Your task to perform on an android device: open wifi settings Image 0: 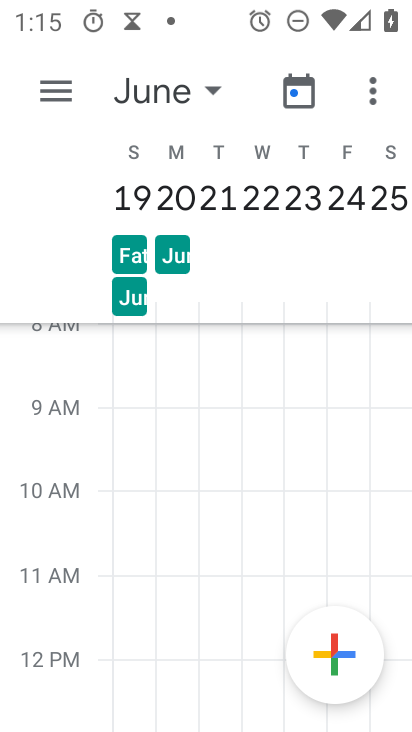
Step 0: press home button
Your task to perform on an android device: open wifi settings Image 1: 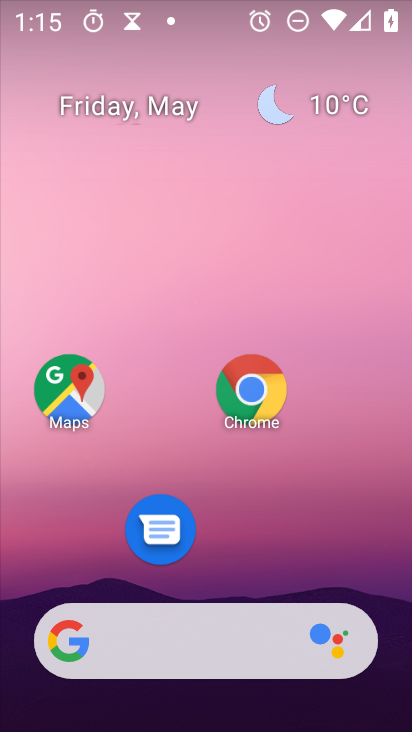
Step 1: drag from (139, 652) to (292, 155)
Your task to perform on an android device: open wifi settings Image 2: 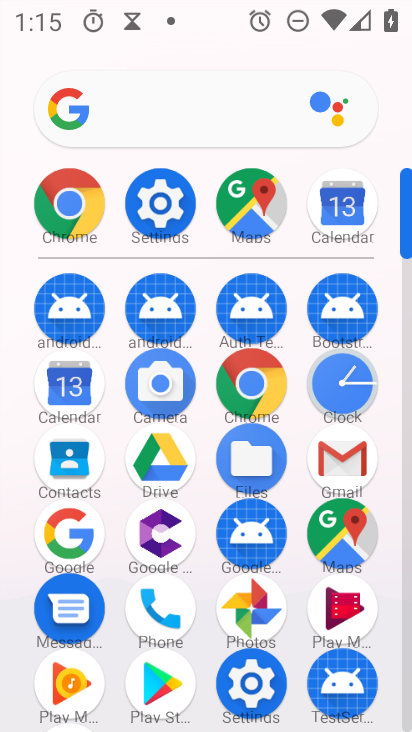
Step 2: click (167, 211)
Your task to perform on an android device: open wifi settings Image 3: 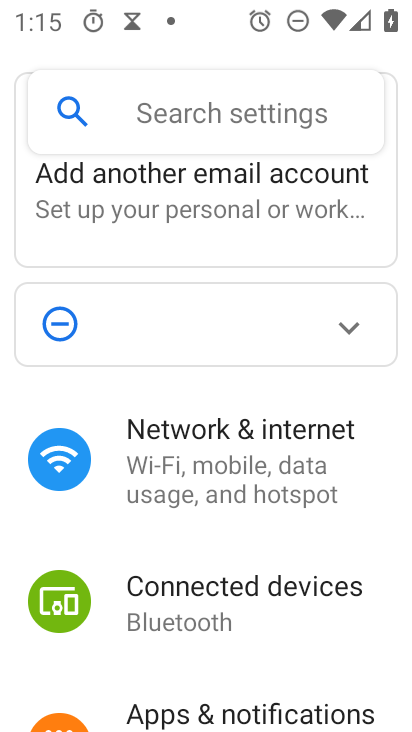
Step 3: click (192, 444)
Your task to perform on an android device: open wifi settings Image 4: 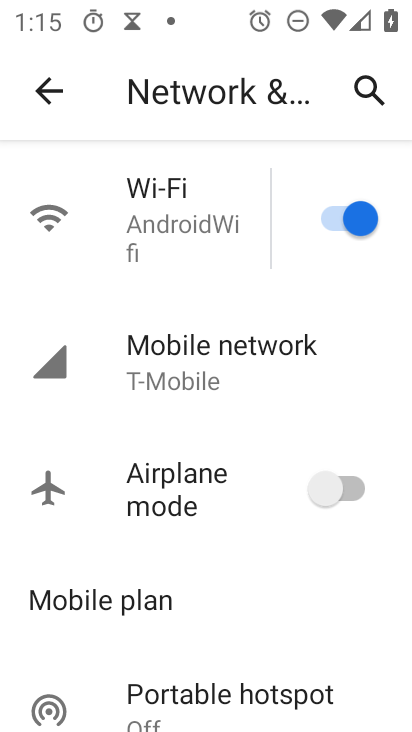
Step 4: click (179, 213)
Your task to perform on an android device: open wifi settings Image 5: 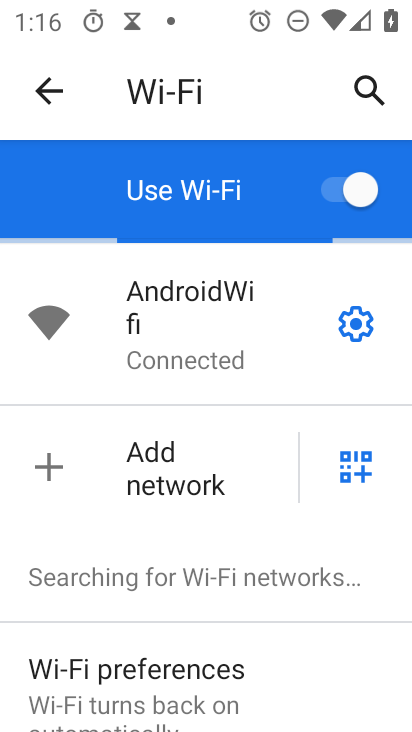
Step 5: task complete